Your task to perform on an android device: empty trash in the gmail app Image 0: 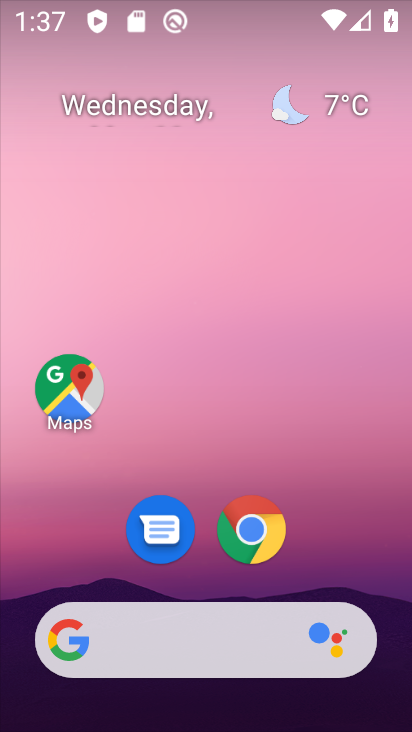
Step 0: drag from (91, 485) to (283, 131)
Your task to perform on an android device: empty trash in the gmail app Image 1: 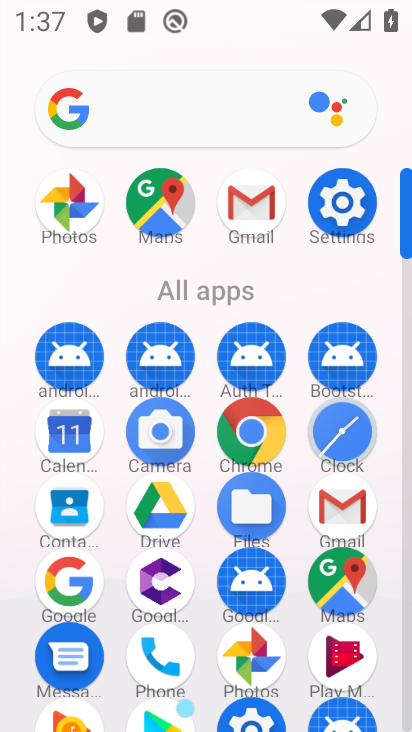
Step 1: click (344, 509)
Your task to perform on an android device: empty trash in the gmail app Image 2: 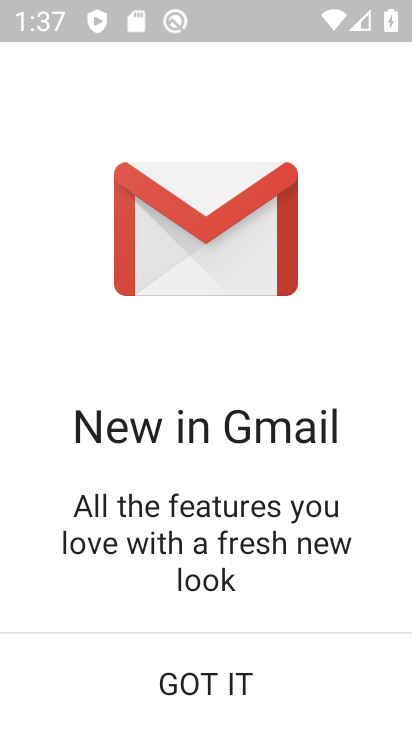
Step 2: click (163, 697)
Your task to perform on an android device: empty trash in the gmail app Image 3: 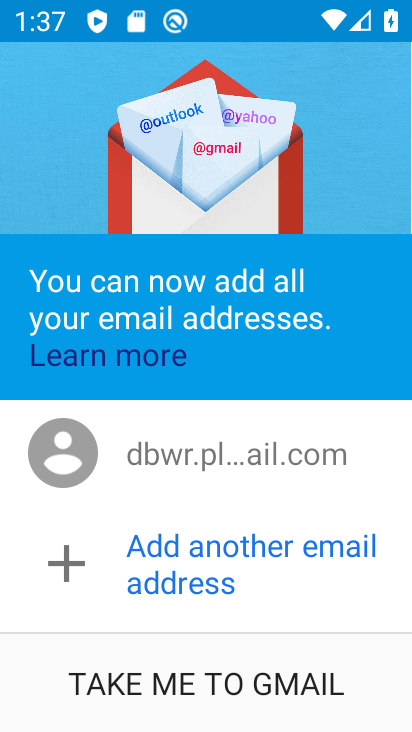
Step 3: click (168, 681)
Your task to perform on an android device: empty trash in the gmail app Image 4: 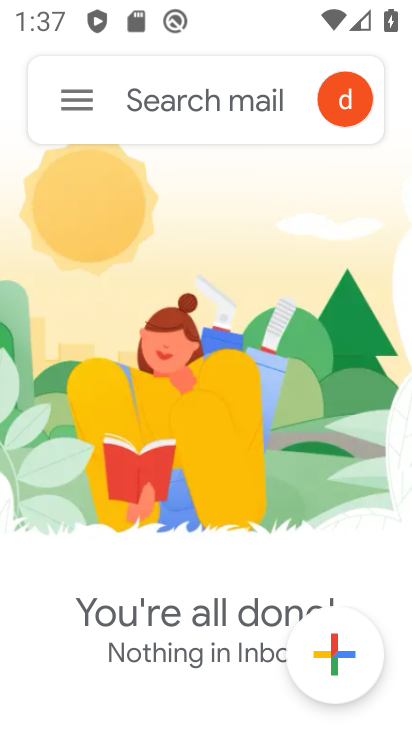
Step 4: click (68, 98)
Your task to perform on an android device: empty trash in the gmail app Image 5: 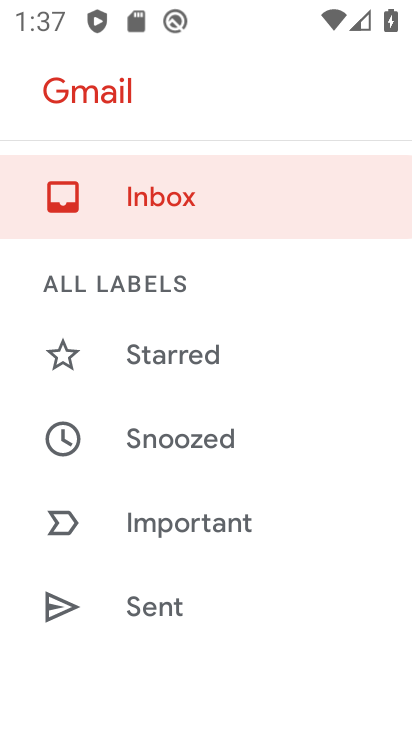
Step 5: drag from (127, 684) to (218, 199)
Your task to perform on an android device: empty trash in the gmail app Image 6: 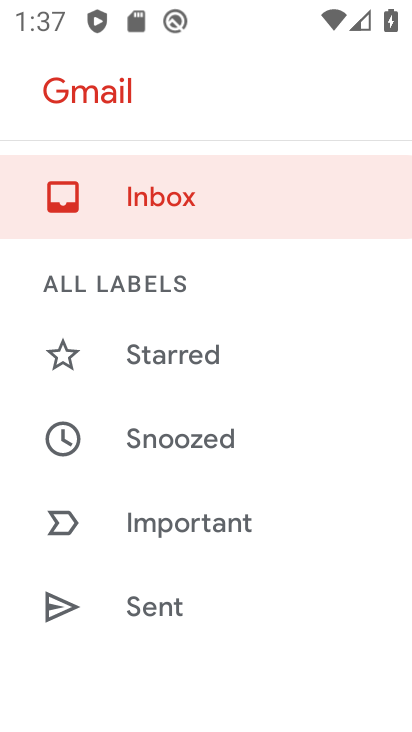
Step 6: drag from (201, 634) to (272, 148)
Your task to perform on an android device: empty trash in the gmail app Image 7: 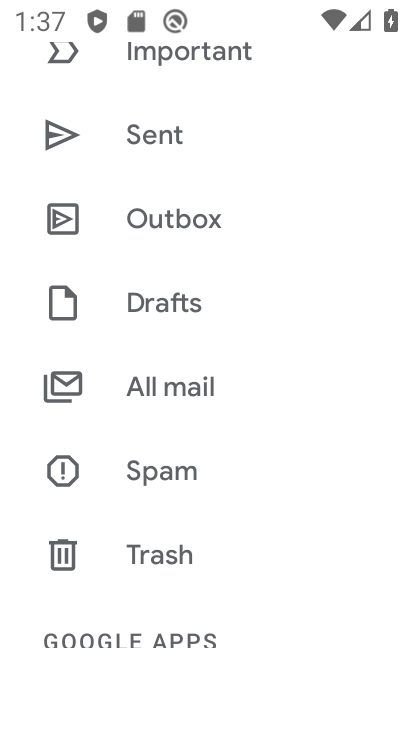
Step 7: click (170, 561)
Your task to perform on an android device: empty trash in the gmail app Image 8: 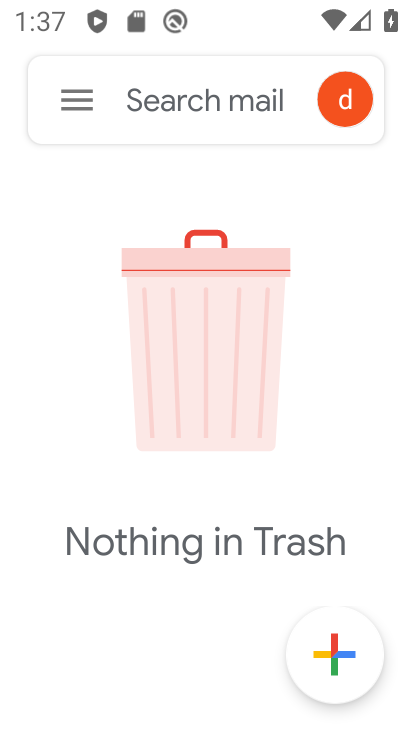
Step 8: task complete